Your task to perform on an android device: Show me the alarms in the clock app Image 0: 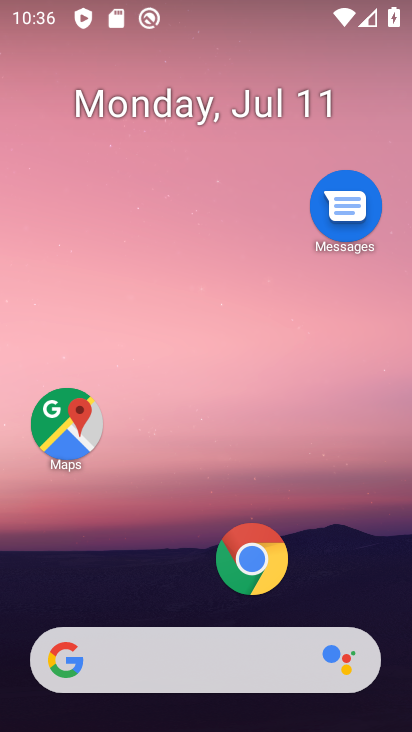
Step 0: drag from (373, 587) to (389, 203)
Your task to perform on an android device: Show me the alarms in the clock app Image 1: 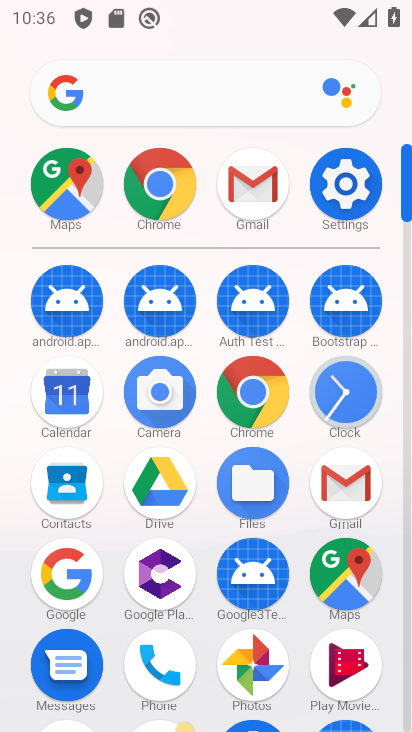
Step 1: click (350, 382)
Your task to perform on an android device: Show me the alarms in the clock app Image 2: 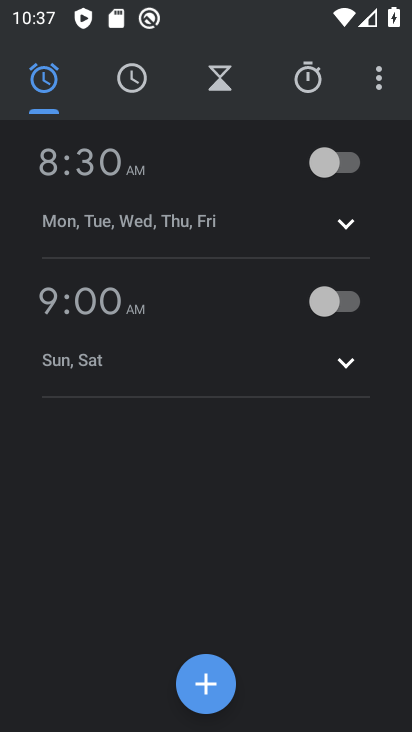
Step 2: task complete